Your task to perform on an android device: Go to Google maps Image 0: 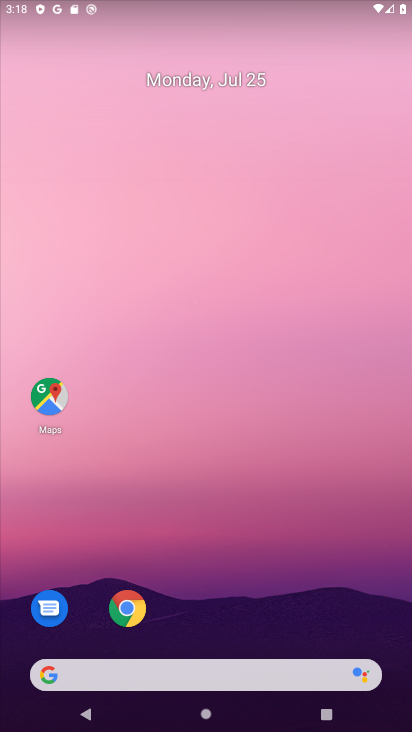
Step 0: click (53, 404)
Your task to perform on an android device: Go to Google maps Image 1: 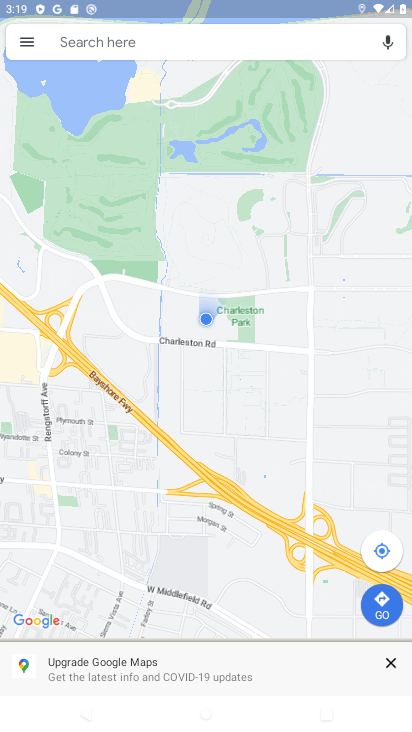
Step 1: task complete